Your task to perform on an android device: clear history in the chrome app Image 0: 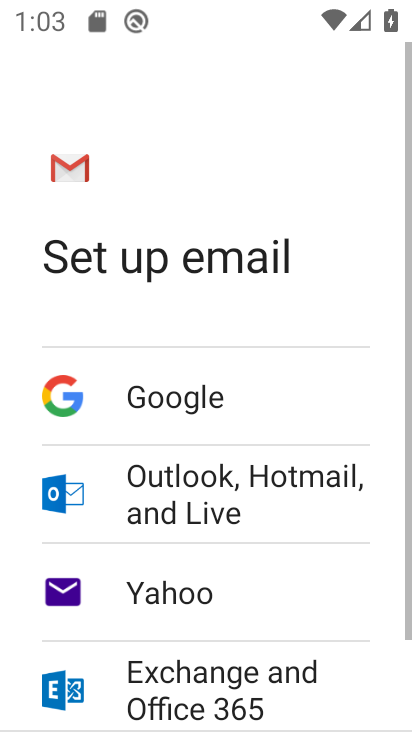
Step 0: press home button
Your task to perform on an android device: clear history in the chrome app Image 1: 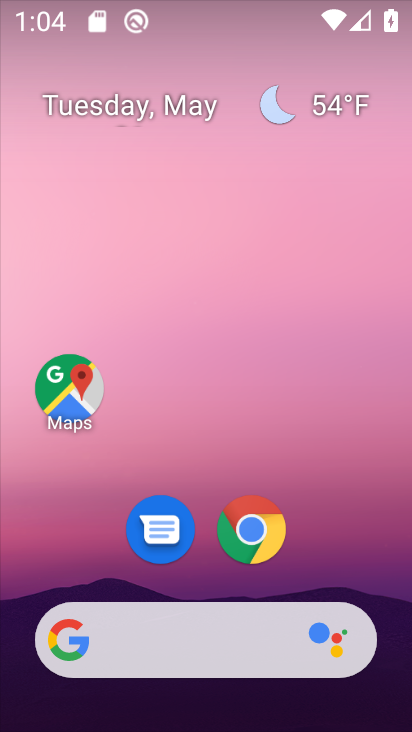
Step 1: drag from (315, 542) to (343, 188)
Your task to perform on an android device: clear history in the chrome app Image 2: 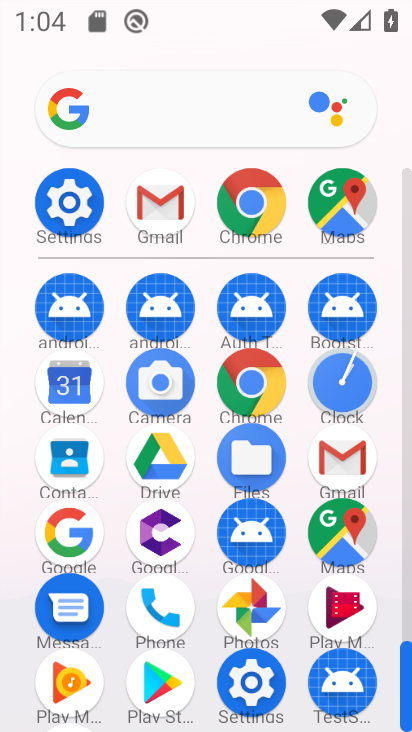
Step 2: click (248, 188)
Your task to perform on an android device: clear history in the chrome app Image 3: 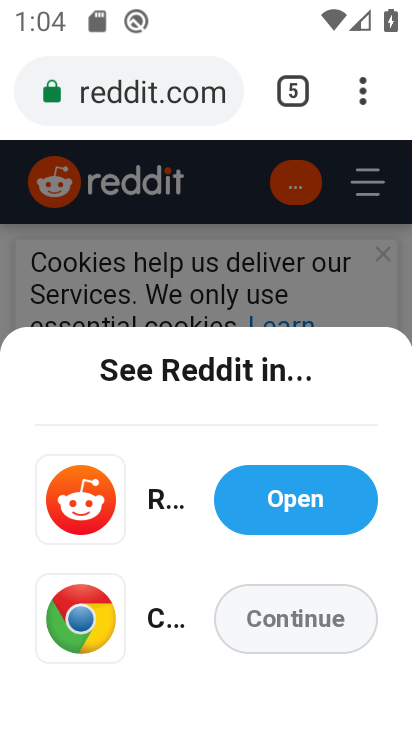
Step 3: click (359, 88)
Your task to perform on an android device: clear history in the chrome app Image 4: 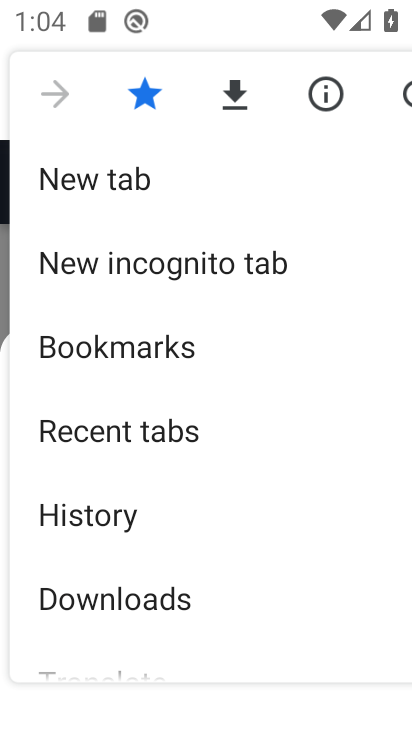
Step 4: click (116, 514)
Your task to perform on an android device: clear history in the chrome app Image 5: 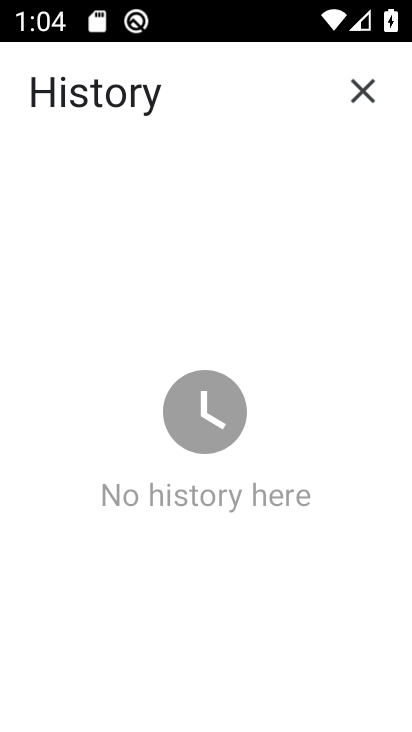
Step 5: task complete